Your task to perform on an android device: delete browsing data in the chrome app Image 0: 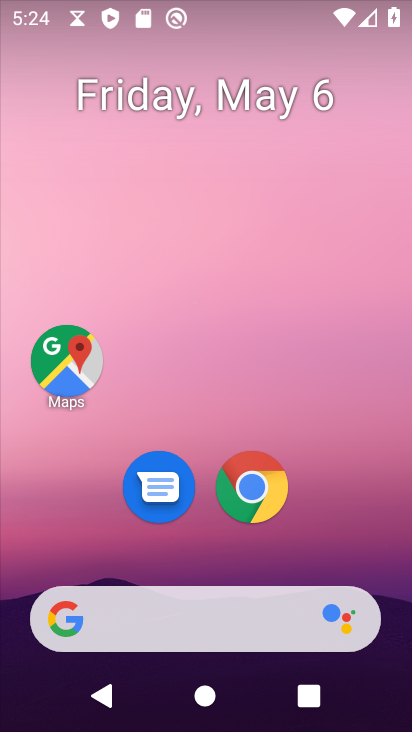
Step 0: click (258, 494)
Your task to perform on an android device: delete browsing data in the chrome app Image 1: 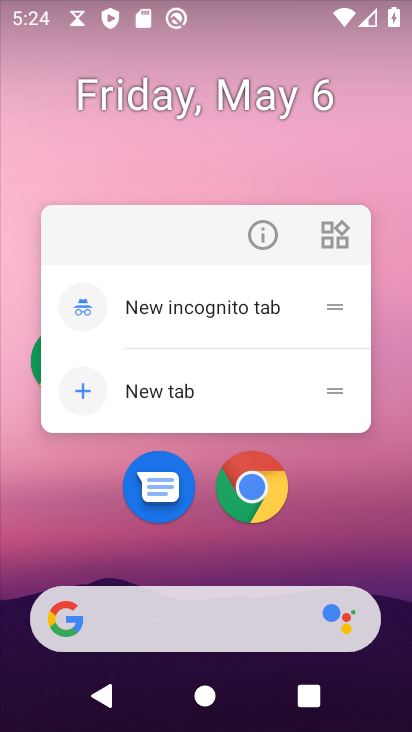
Step 1: click (251, 485)
Your task to perform on an android device: delete browsing data in the chrome app Image 2: 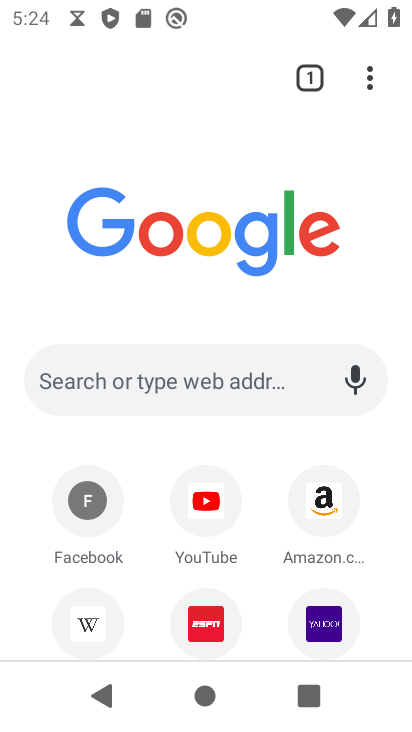
Step 2: click (374, 79)
Your task to perform on an android device: delete browsing data in the chrome app Image 3: 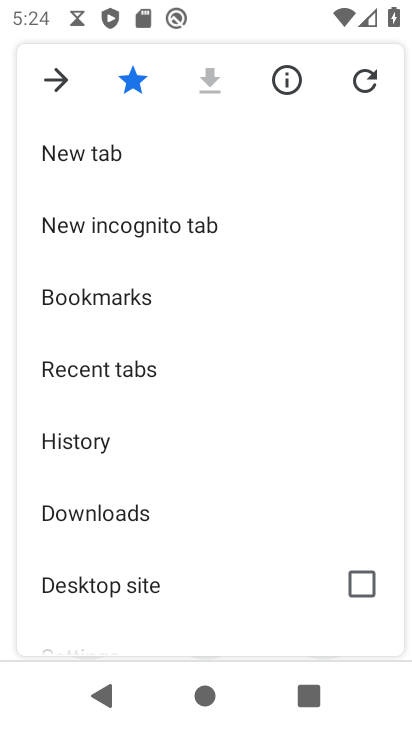
Step 3: drag from (177, 482) to (207, 310)
Your task to perform on an android device: delete browsing data in the chrome app Image 4: 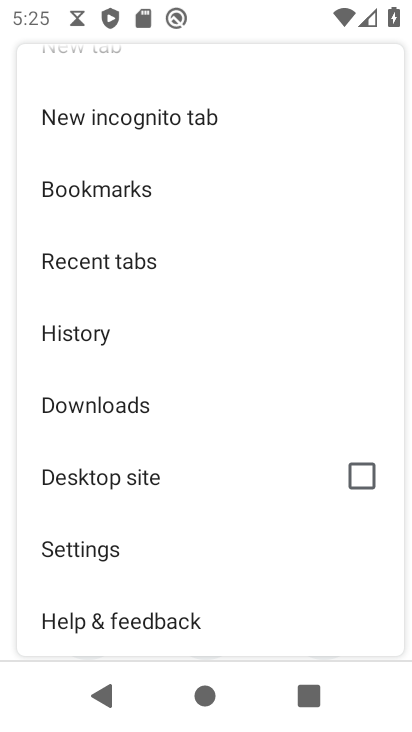
Step 4: click (95, 551)
Your task to perform on an android device: delete browsing data in the chrome app Image 5: 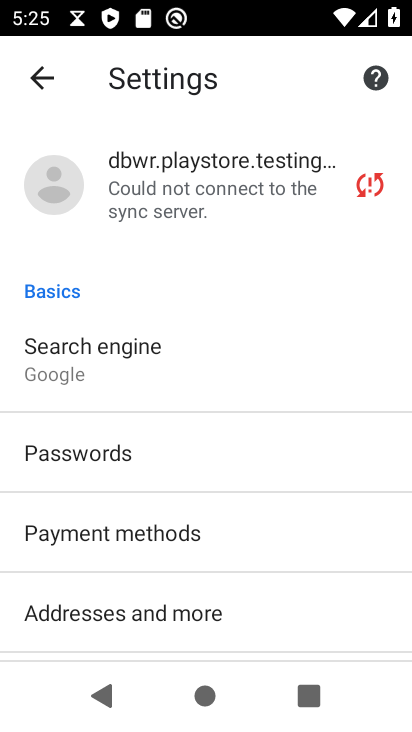
Step 5: drag from (156, 493) to (225, 318)
Your task to perform on an android device: delete browsing data in the chrome app Image 6: 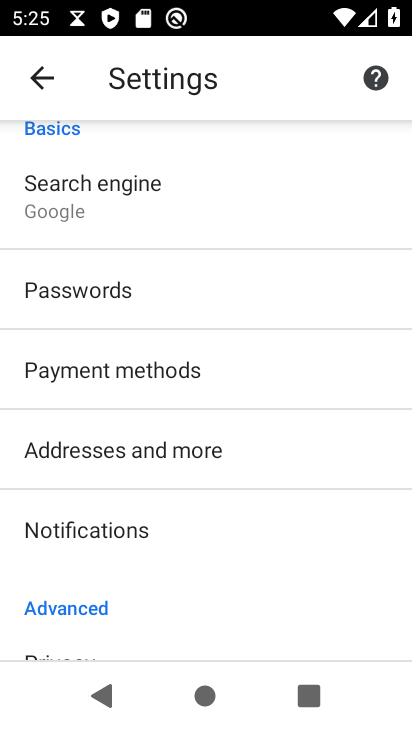
Step 6: drag from (131, 556) to (199, 383)
Your task to perform on an android device: delete browsing data in the chrome app Image 7: 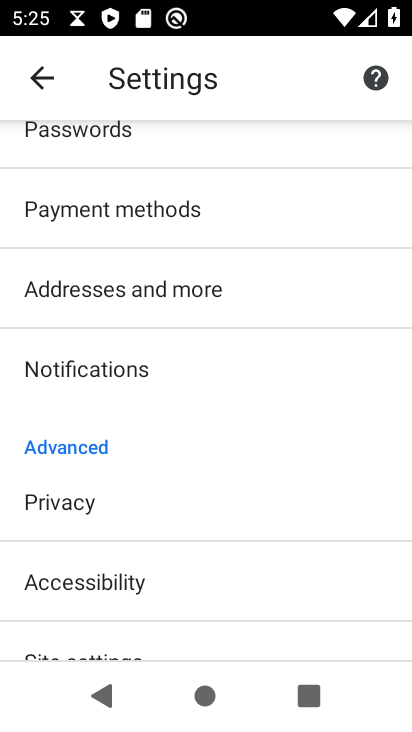
Step 7: click (75, 503)
Your task to perform on an android device: delete browsing data in the chrome app Image 8: 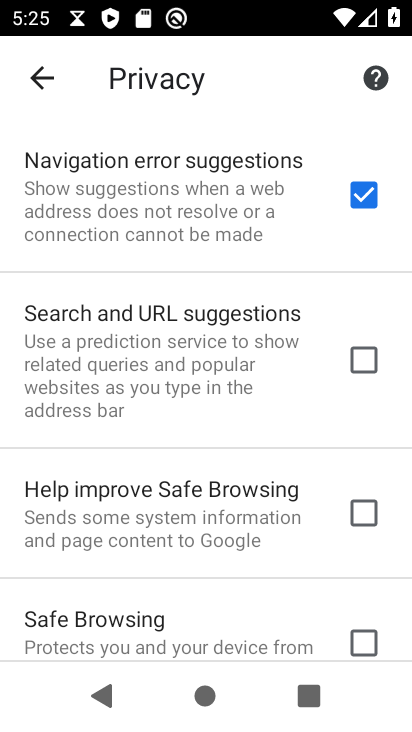
Step 8: drag from (144, 537) to (179, 350)
Your task to perform on an android device: delete browsing data in the chrome app Image 9: 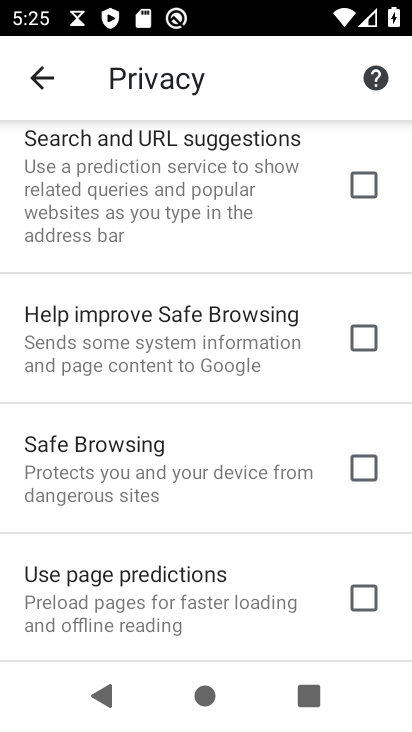
Step 9: drag from (216, 636) to (249, 295)
Your task to perform on an android device: delete browsing data in the chrome app Image 10: 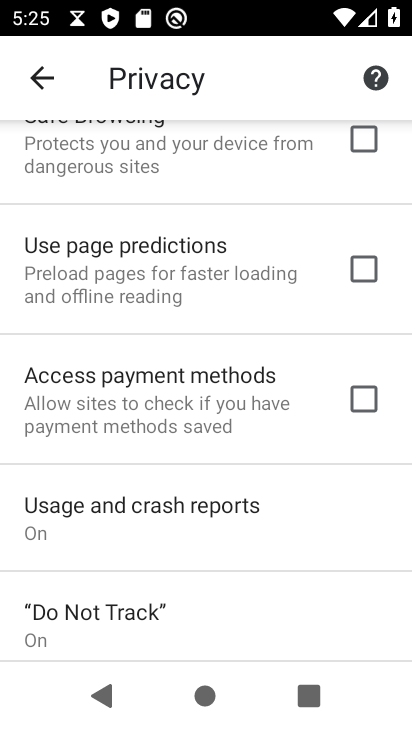
Step 10: drag from (147, 559) to (213, 330)
Your task to perform on an android device: delete browsing data in the chrome app Image 11: 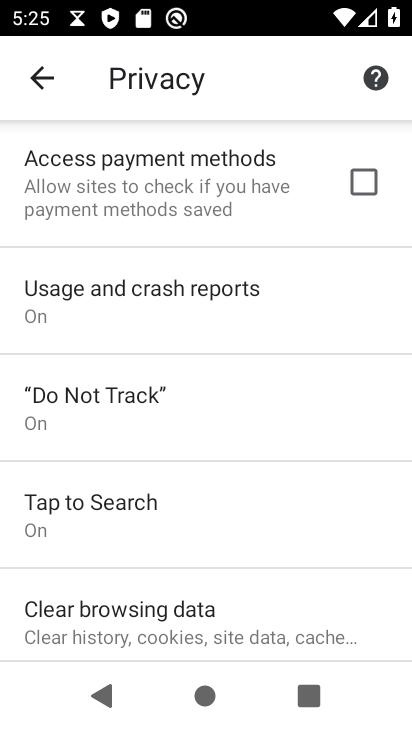
Step 11: click (148, 607)
Your task to perform on an android device: delete browsing data in the chrome app Image 12: 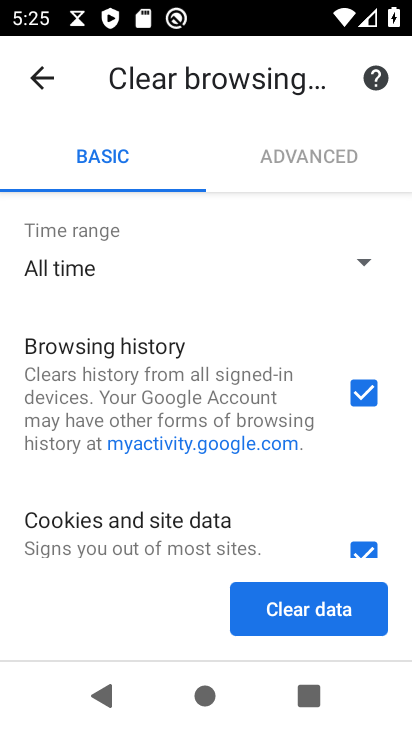
Step 12: click (264, 596)
Your task to perform on an android device: delete browsing data in the chrome app Image 13: 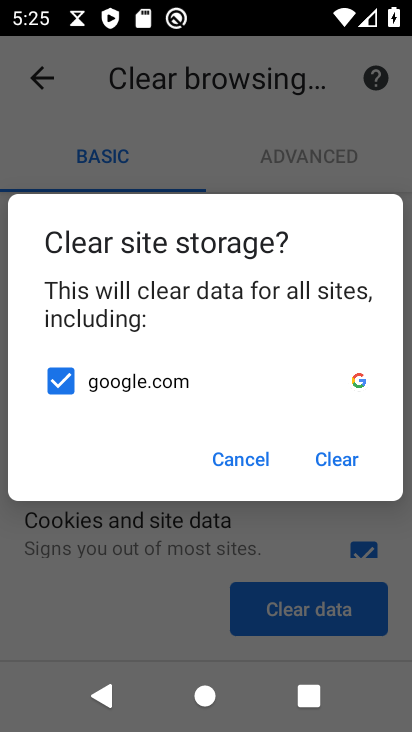
Step 13: click (347, 460)
Your task to perform on an android device: delete browsing data in the chrome app Image 14: 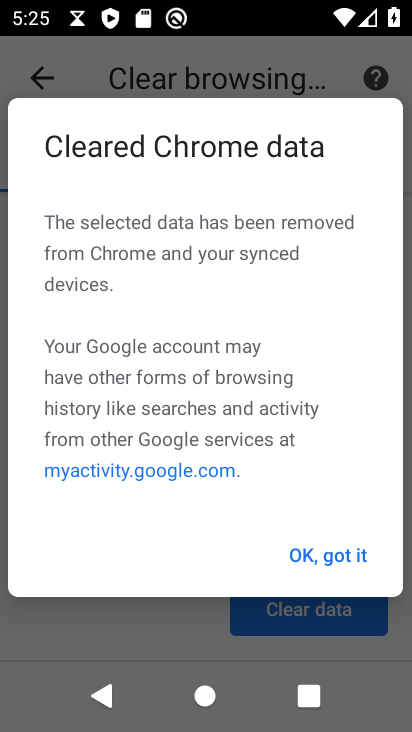
Step 14: click (326, 543)
Your task to perform on an android device: delete browsing data in the chrome app Image 15: 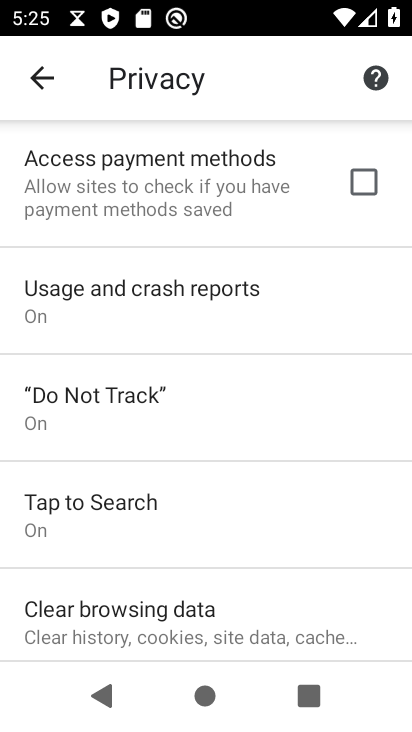
Step 15: task complete